Your task to perform on an android device: turn off smart reply in the gmail app Image 0: 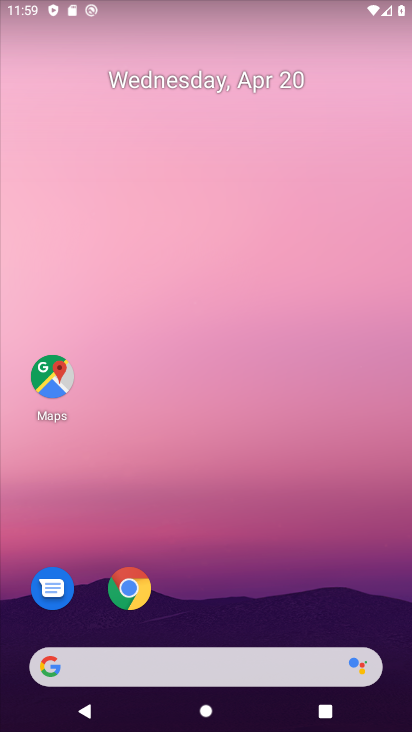
Step 0: drag from (301, 265) to (340, 140)
Your task to perform on an android device: turn off smart reply in the gmail app Image 1: 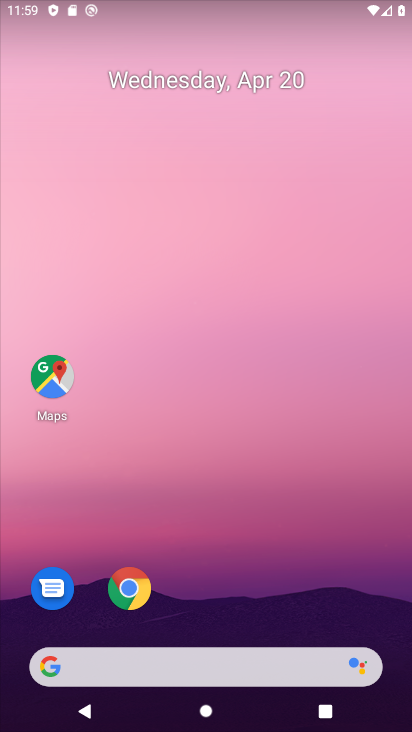
Step 1: drag from (204, 655) to (339, 130)
Your task to perform on an android device: turn off smart reply in the gmail app Image 2: 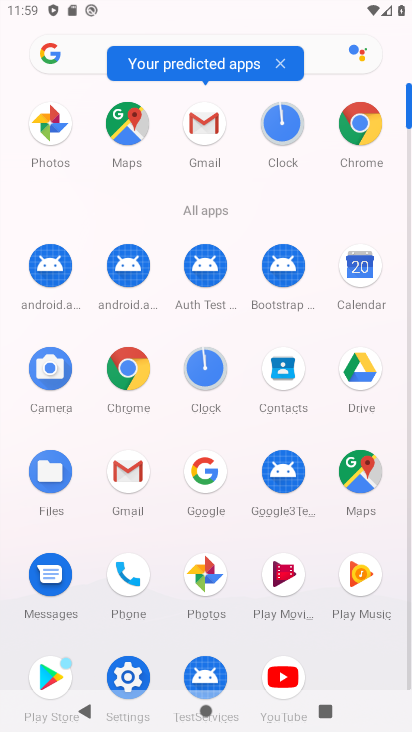
Step 2: click (132, 481)
Your task to perform on an android device: turn off smart reply in the gmail app Image 3: 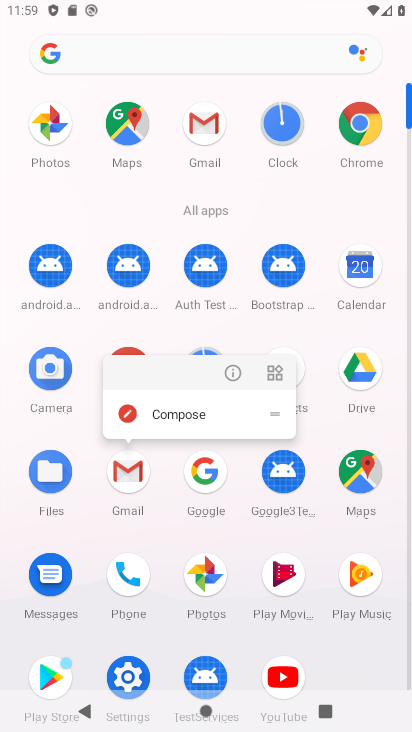
Step 3: click (132, 477)
Your task to perform on an android device: turn off smart reply in the gmail app Image 4: 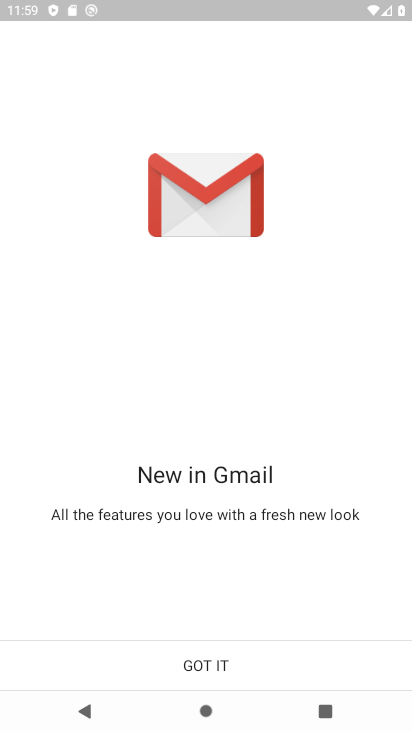
Step 4: click (240, 672)
Your task to perform on an android device: turn off smart reply in the gmail app Image 5: 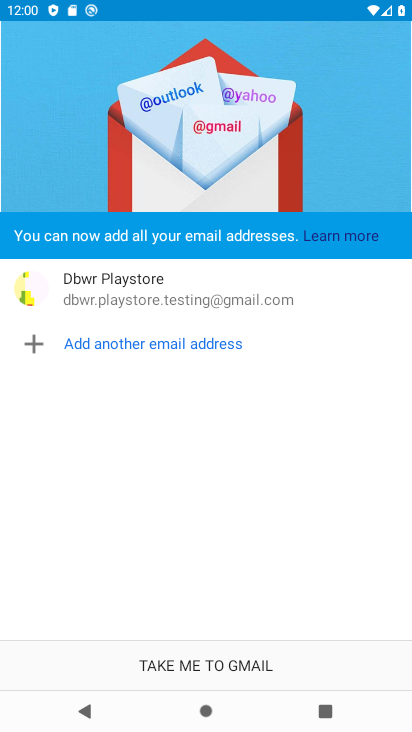
Step 5: click (235, 673)
Your task to perform on an android device: turn off smart reply in the gmail app Image 6: 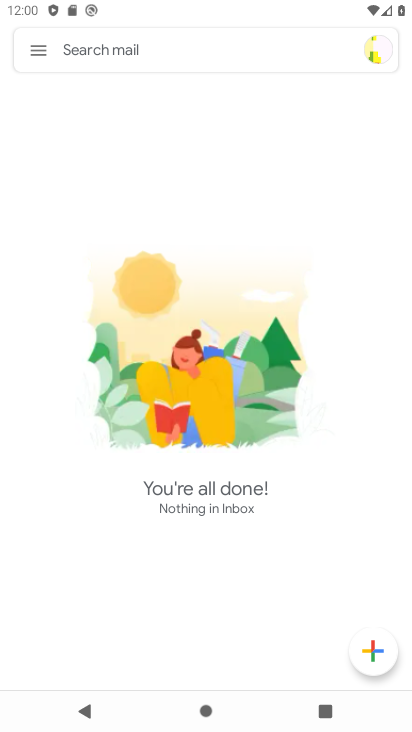
Step 6: click (32, 53)
Your task to perform on an android device: turn off smart reply in the gmail app Image 7: 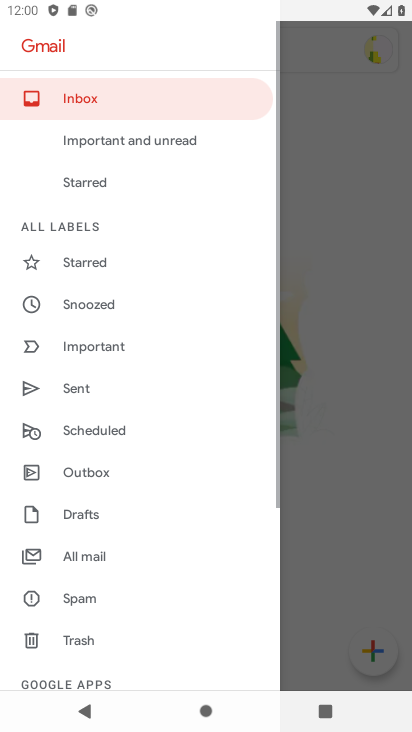
Step 7: drag from (70, 675) to (154, 278)
Your task to perform on an android device: turn off smart reply in the gmail app Image 8: 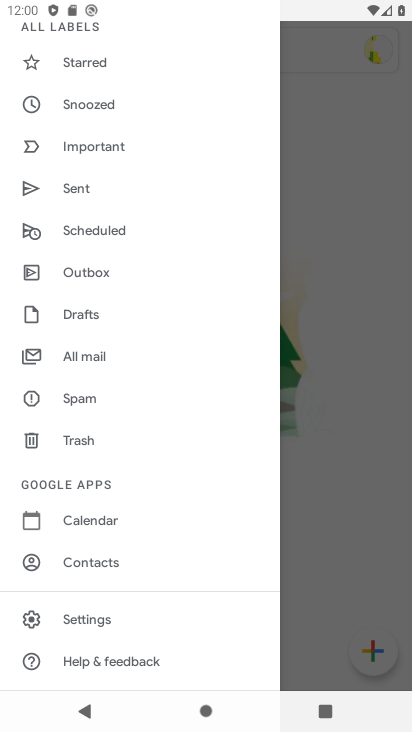
Step 8: click (111, 624)
Your task to perform on an android device: turn off smart reply in the gmail app Image 9: 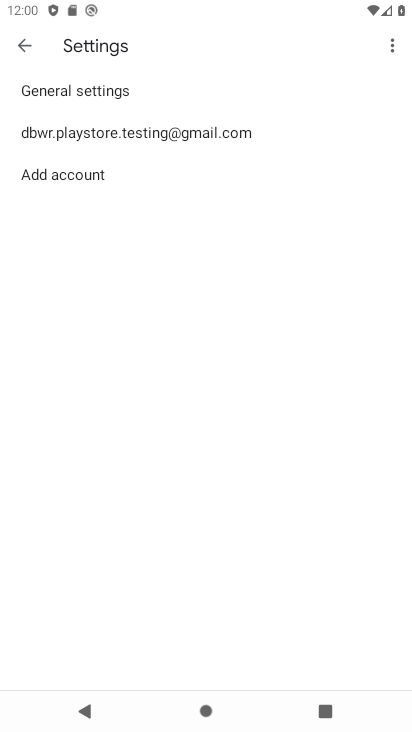
Step 9: click (221, 134)
Your task to perform on an android device: turn off smart reply in the gmail app Image 10: 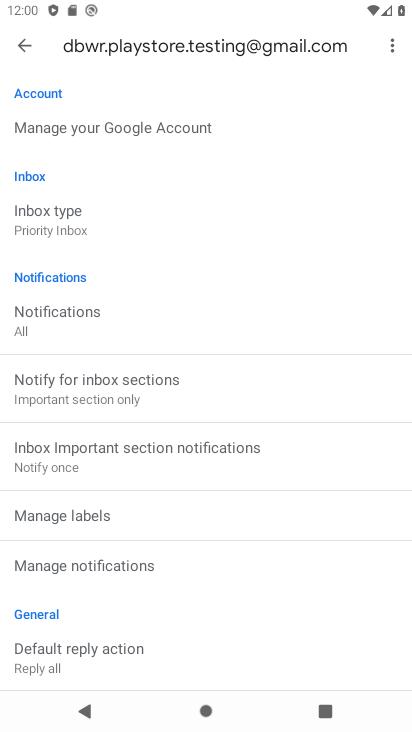
Step 10: drag from (171, 658) to (287, 307)
Your task to perform on an android device: turn off smart reply in the gmail app Image 11: 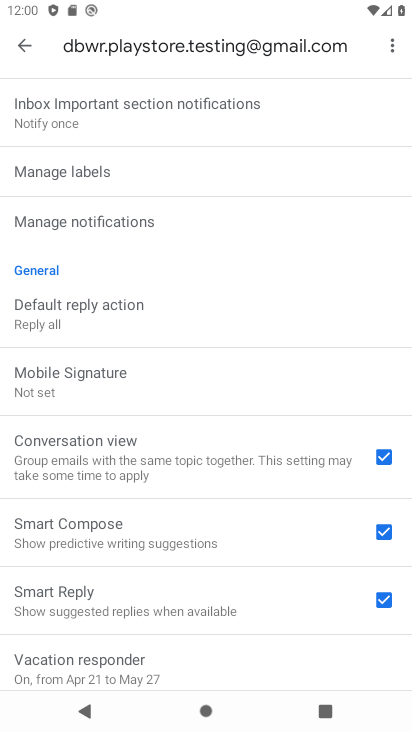
Step 11: click (385, 600)
Your task to perform on an android device: turn off smart reply in the gmail app Image 12: 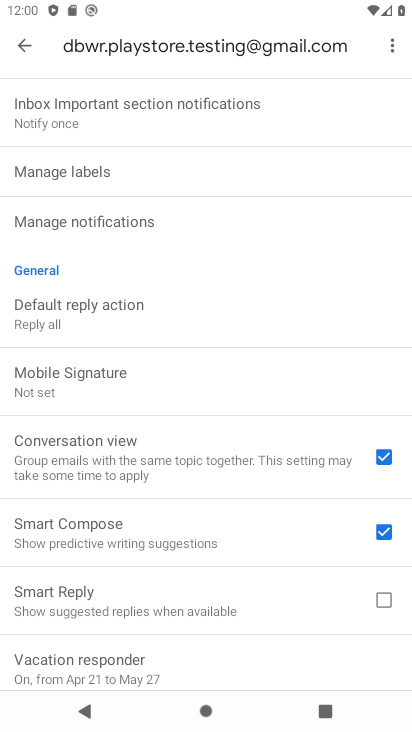
Step 12: task complete